Your task to perform on an android device: Open Maps and search for coffee Image 0: 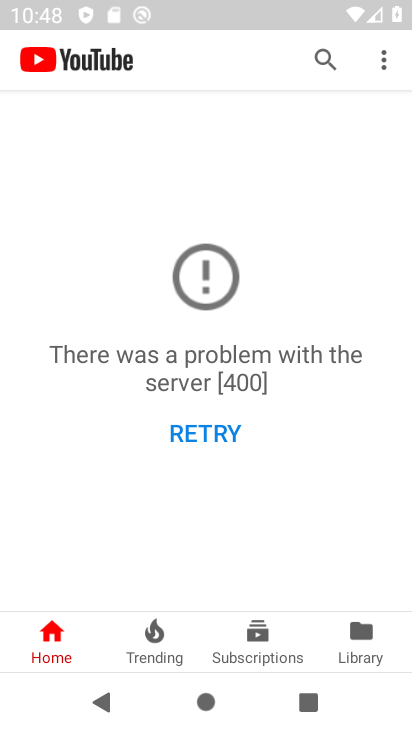
Step 0: press home button
Your task to perform on an android device: Open Maps and search for coffee Image 1: 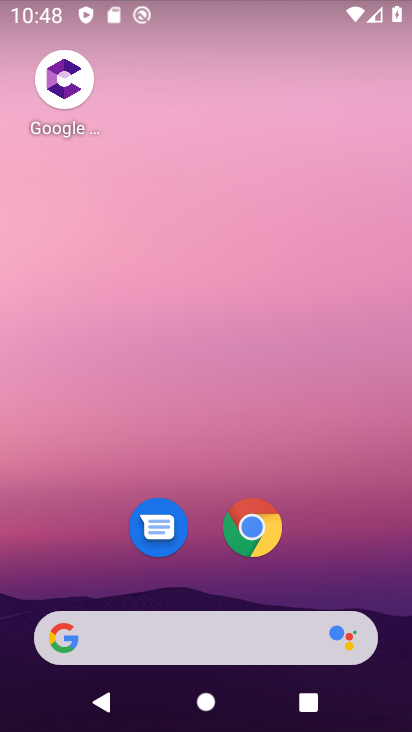
Step 1: click (145, 635)
Your task to perform on an android device: Open Maps and search for coffee Image 2: 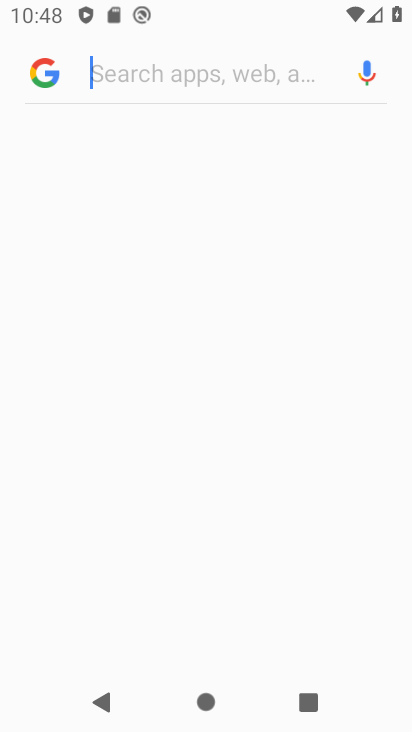
Step 2: press back button
Your task to perform on an android device: Open Maps and search for coffee Image 3: 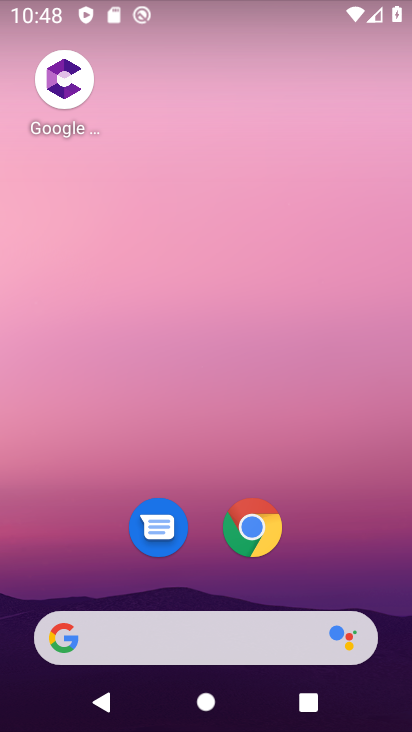
Step 3: drag from (210, 591) to (290, 17)
Your task to perform on an android device: Open Maps and search for coffee Image 4: 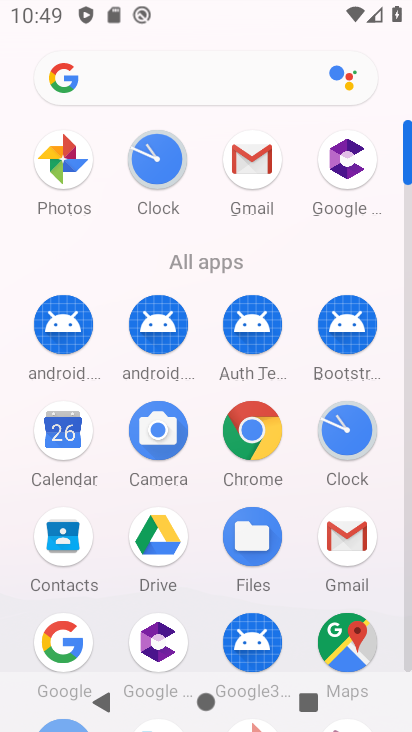
Step 4: click (355, 641)
Your task to perform on an android device: Open Maps and search for coffee Image 5: 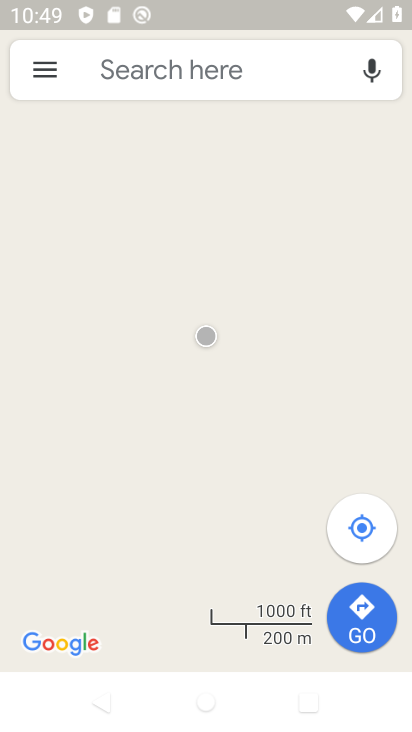
Step 5: click (189, 86)
Your task to perform on an android device: Open Maps and search for coffee Image 6: 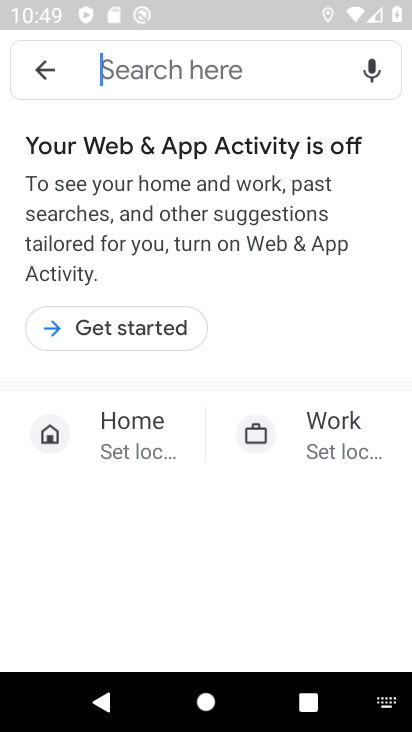
Step 6: type "coffee"
Your task to perform on an android device: Open Maps and search for coffee Image 7: 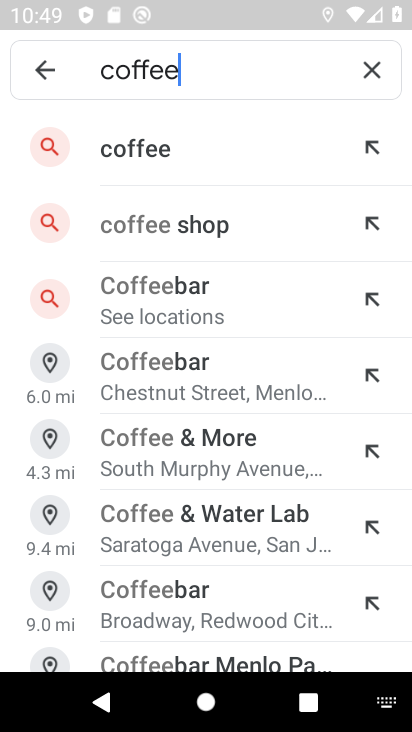
Step 7: click (212, 163)
Your task to perform on an android device: Open Maps and search for coffee Image 8: 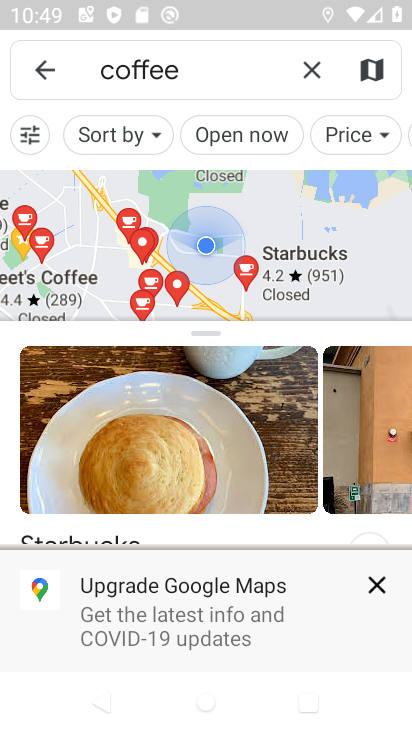
Step 8: task complete